Your task to perform on an android device: allow cookies in the chrome app Image 0: 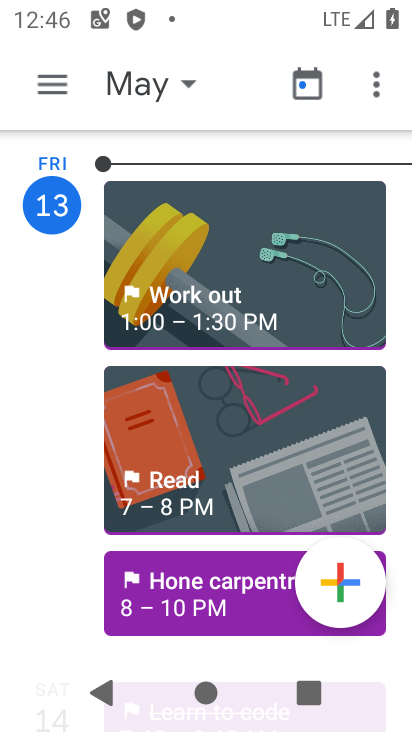
Step 0: press home button
Your task to perform on an android device: allow cookies in the chrome app Image 1: 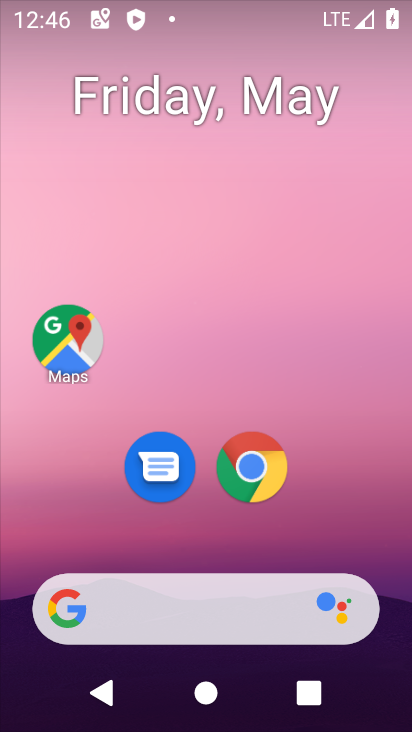
Step 1: click (252, 467)
Your task to perform on an android device: allow cookies in the chrome app Image 2: 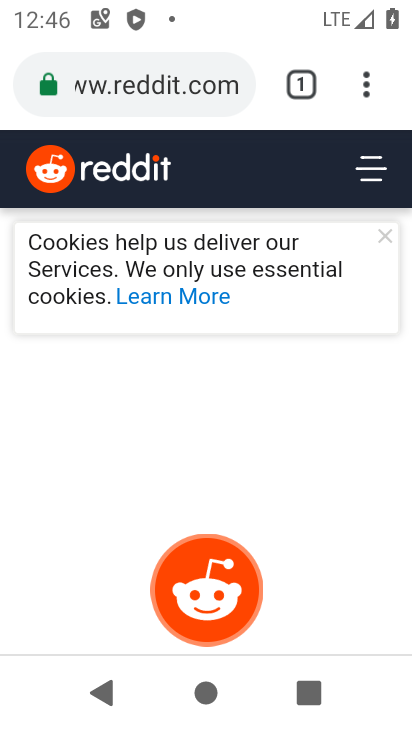
Step 2: click (367, 84)
Your task to perform on an android device: allow cookies in the chrome app Image 3: 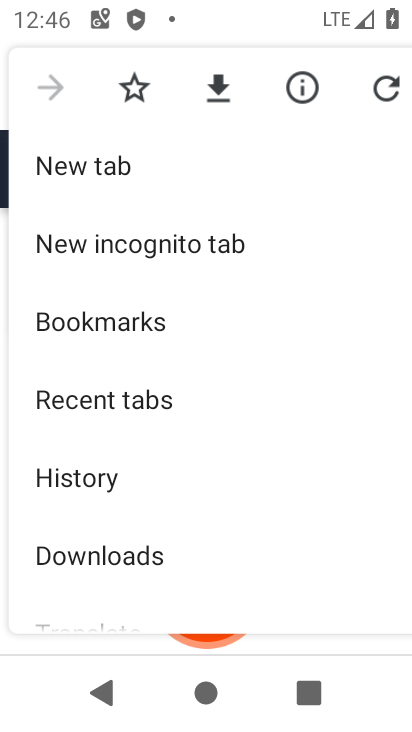
Step 3: drag from (186, 480) to (202, 375)
Your task to perform on an android device: allow cookies in the chrome app Image 4: 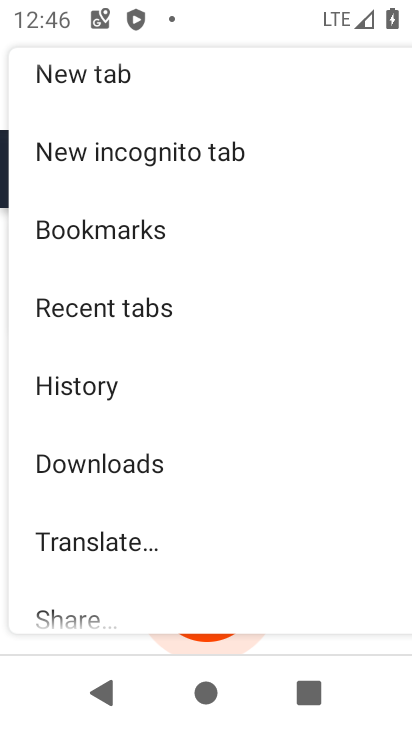
Step 4: drag from (192, 482) to (216, 350)
Your task to perform on an android device: allow cookies in the chrome app Image 5: 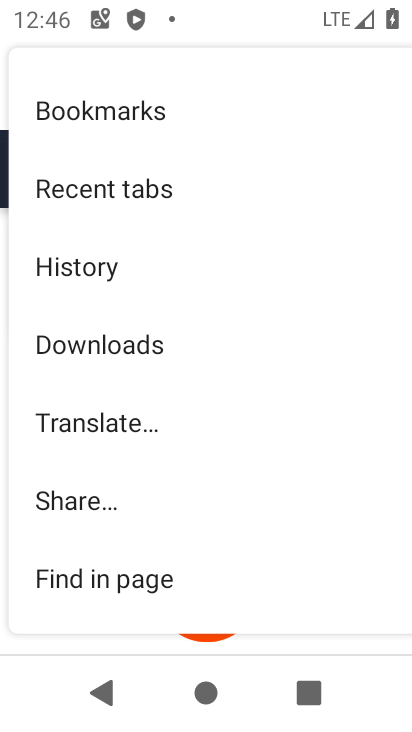
Step 5: drag from (182, 496) to (268, 353)
Your task to perform on an android device: allow cookies in the chrome app Image 6: 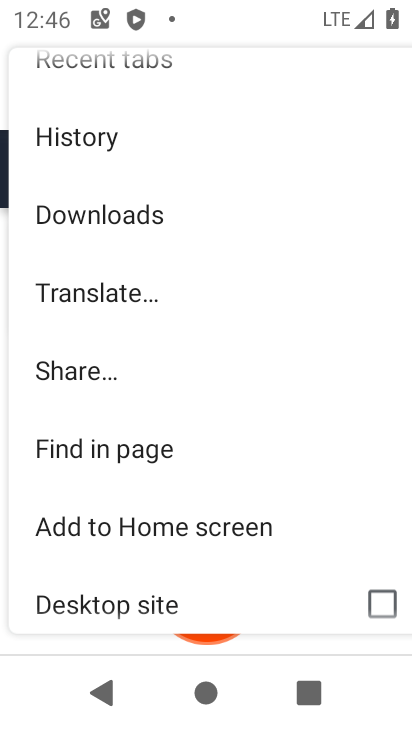
Step 6: drag from (190, 496) to (275, 378)
Your task to perform on an android device: allow cookies in the chrome app Image 7: 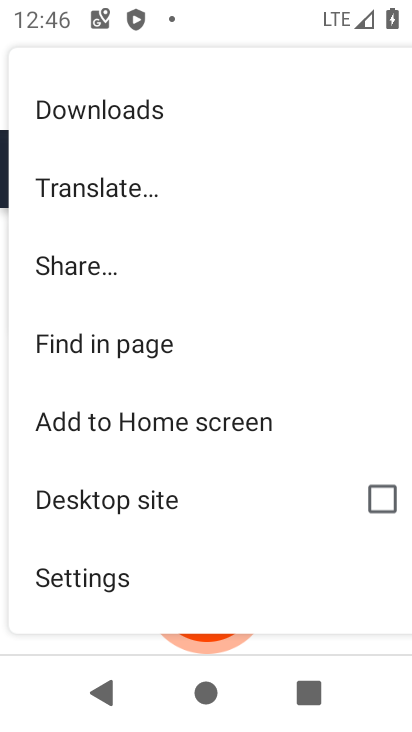
Step 7: drag from (166, 548) to (272, 376)
Your task to perform on an android device: allow cookies in the chrome app Image 8: 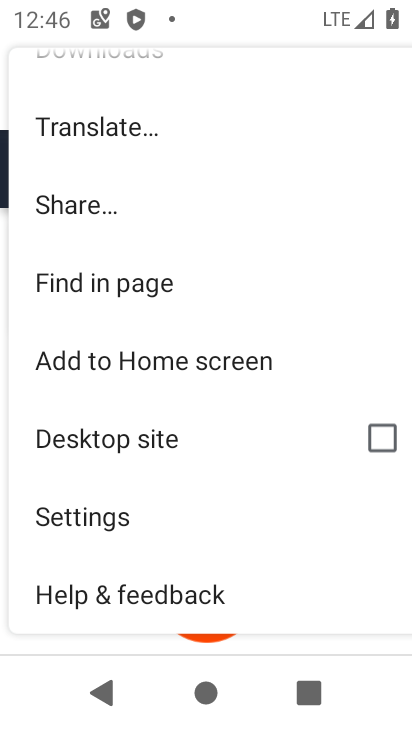
Step 8: click (68, 512)
Your task to perform on an android device: allow cookies in the chrome app Image 9: 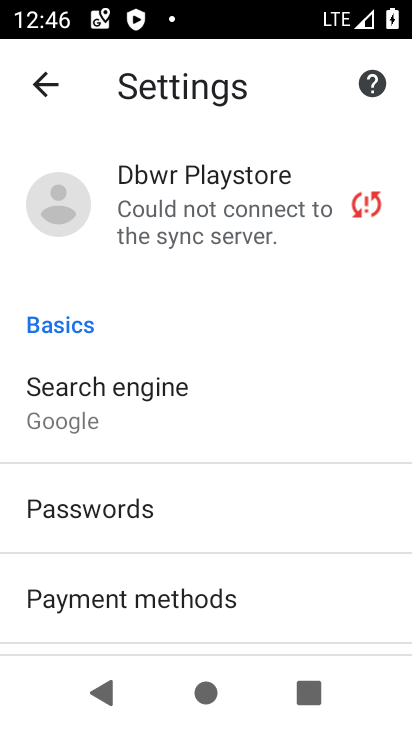
Step 9: drag from (213, 537) to (279, 379)
Your task to perform on an android device: allow cookies in the chrome app Image 10: 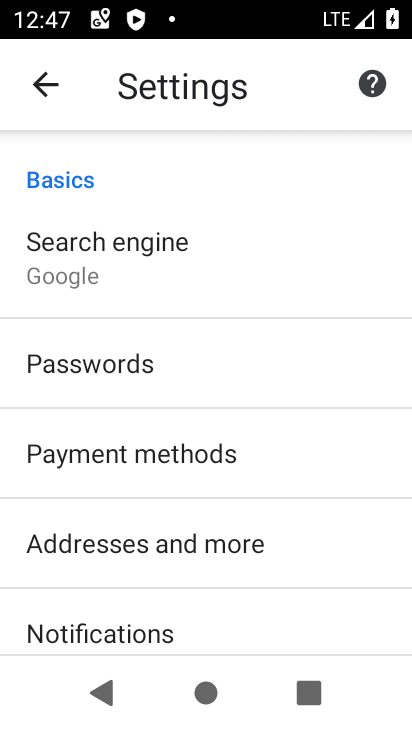
Step 10: drag from (234, 518) to (286, 383)
Your task to perform on an android device: allow cookies in the chrome app Image 11: 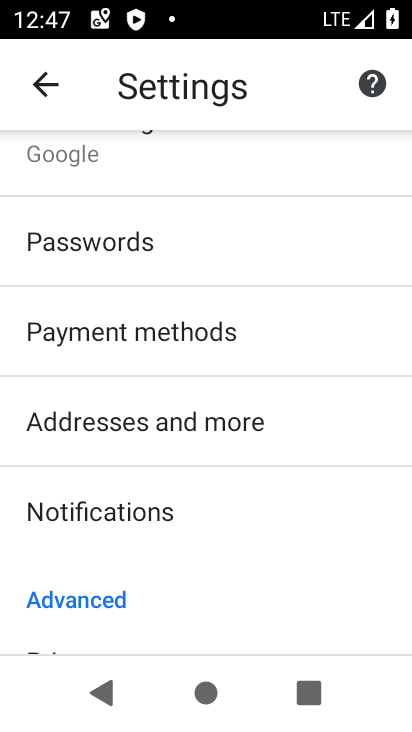
Step 11: drag from (247, 542) to (327, 362)
Your task to perform on an android device: allow cookies in the chrome app Image 12: 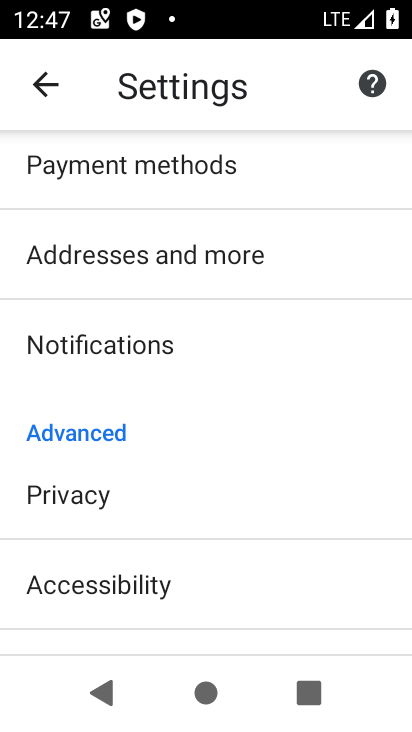
Step 12: drag from (249, 569) to (343, 405)
Your task to perform on an android device: allow cookies in the chrome app Image 13: 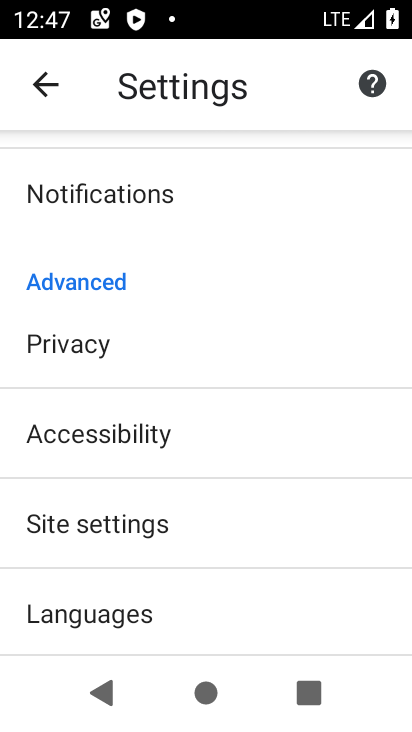
Step 13: click (153, 524)
Your task to perform on an android device: allow cookies in the chrome app Image 14: 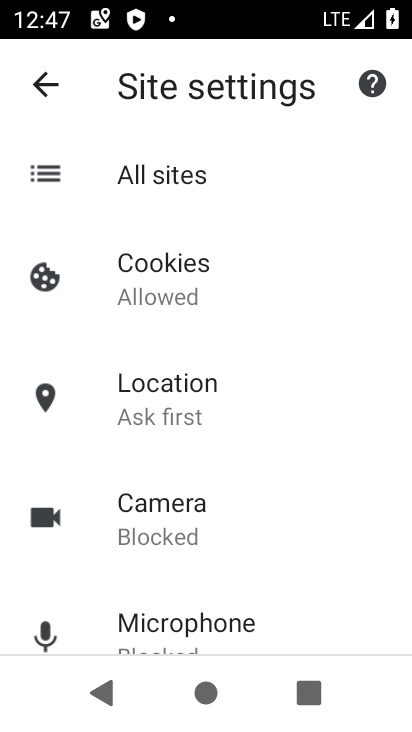
Step 14: click (195, 279)
Your task to perform on an android device: allow cookies in the chrome app Image 15: 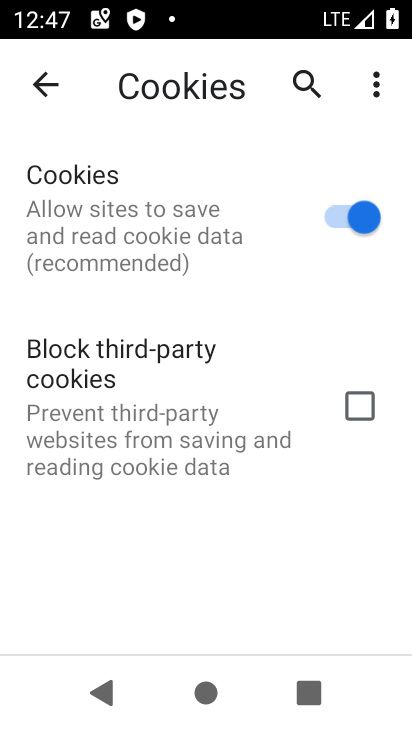
Step 15: click (360, 399)
Your task to perform on an android device: allow cookies in the chrome app Image 16: 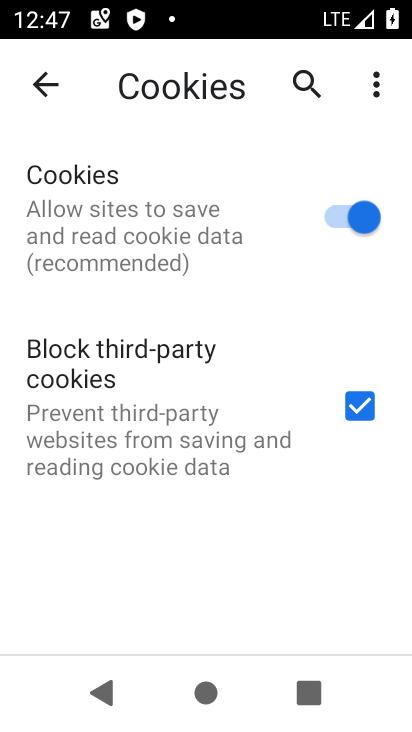
Step 16: task complete